Your task to perform on an android device: Open Google Image 0: 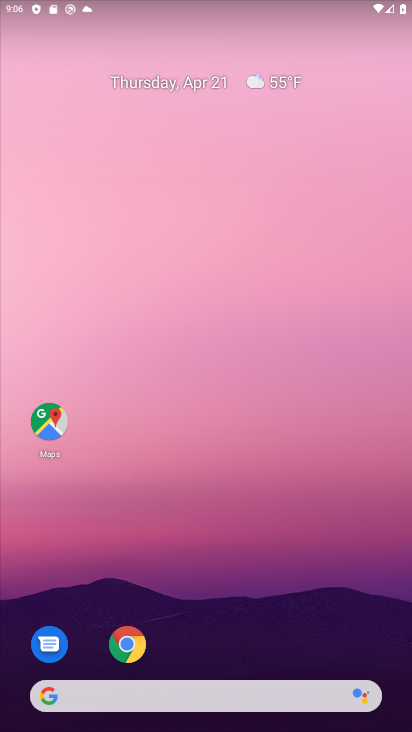
Step 0: drag from (216, 604) to (243, 150)
Your task to perform on an android device: Open Google Image 1: 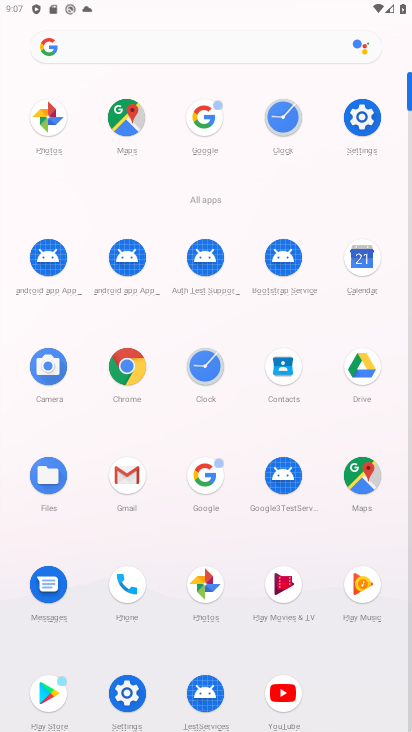
Step 1: click (207, 477)
Your task to perform on an android device: Open Google Image 2: 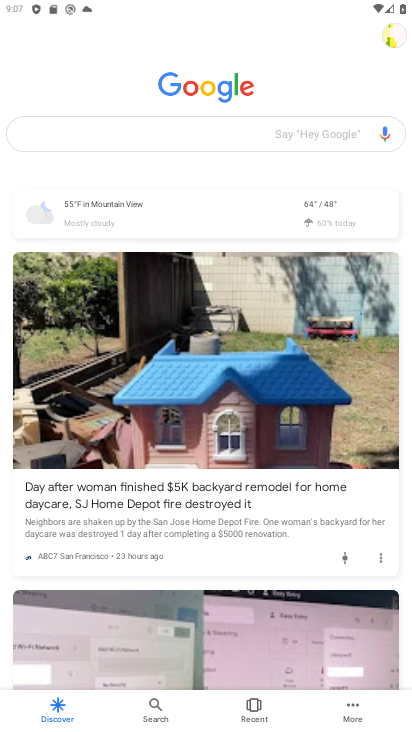
Step 2: task complete